Your task to perform on an android device: open chrome privacy settings Image 0: 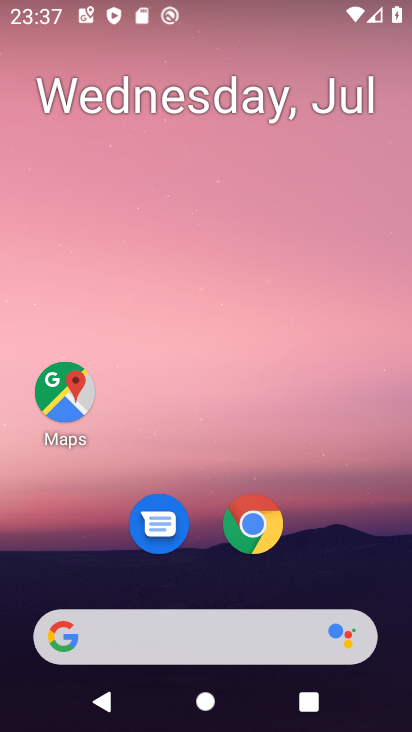
Step 0: press home button
Your task to perform on an android device: open chrome privacy settings Image 1: 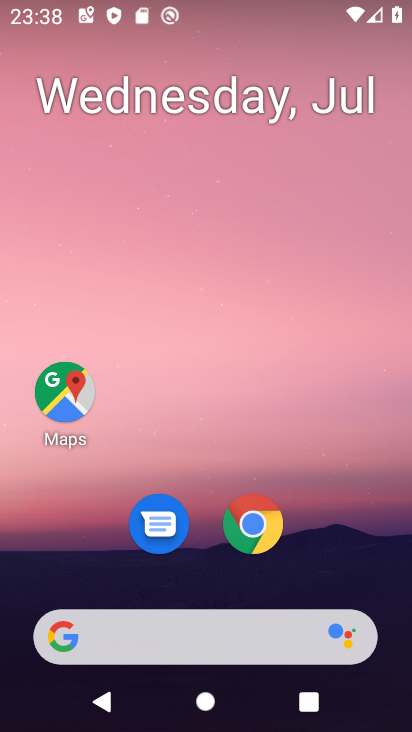
Step 1: click (254, 527)
Your task to perform on an android device: open chrome privacy settings Image 2: 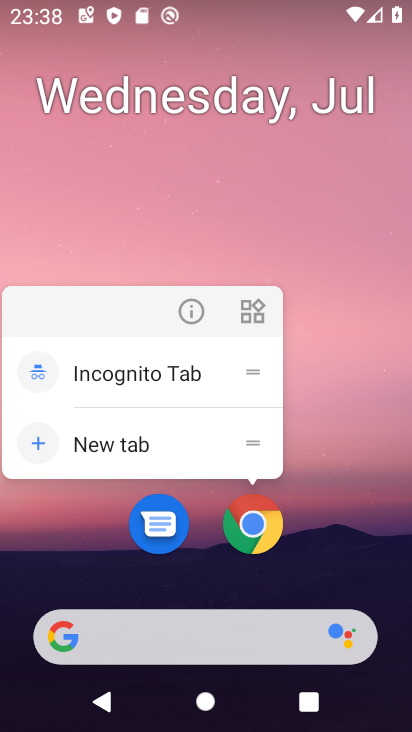
Step 2: click (254, 527)
Your task to perform on an android device: open chrome privacy settings Image 3: 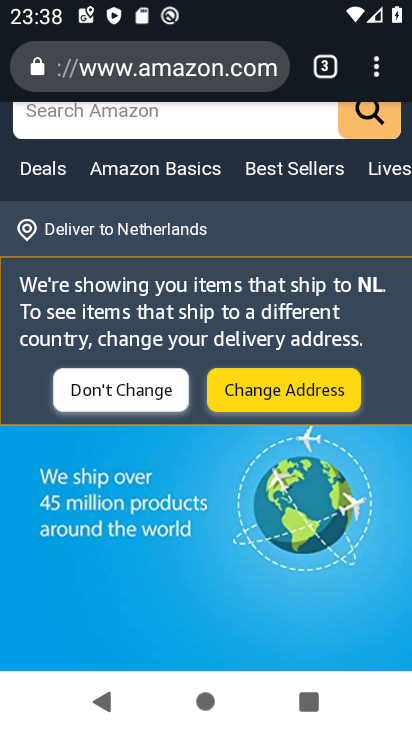
Step 3: drag from (377, 67) to (209, 535)
Your task to perform on an android device: open chrome privacy settings Image 4: 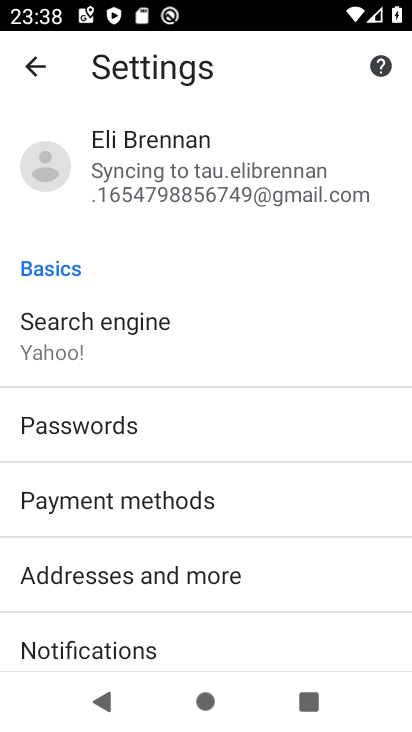
Step 4: drag from (204, 662) to (334, 109)
Your task to perform on an android device: open chrome privacy settings Image 5: 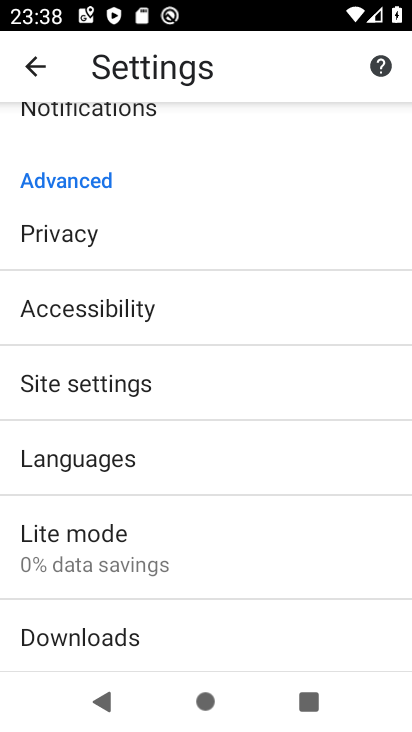
Step 5: click (65, 236)
Your task to perform on an android device: open chrome privacy settings Image 6: 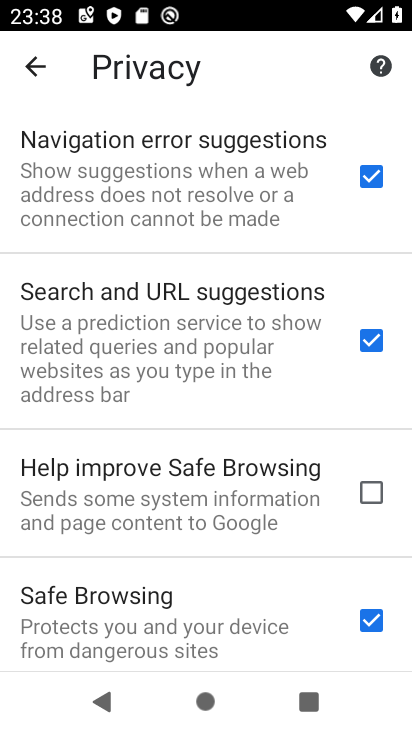
Step 6: task complete